Your task to perform on an android device: Open the calendar and show me this week's events? Image 0: 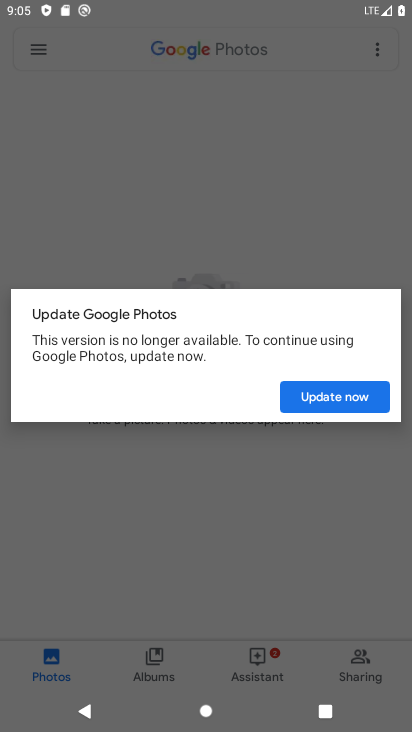
Step 0: press home button
Your task to perform on an android device: Open the calendar and show me this week's events? Image 1: 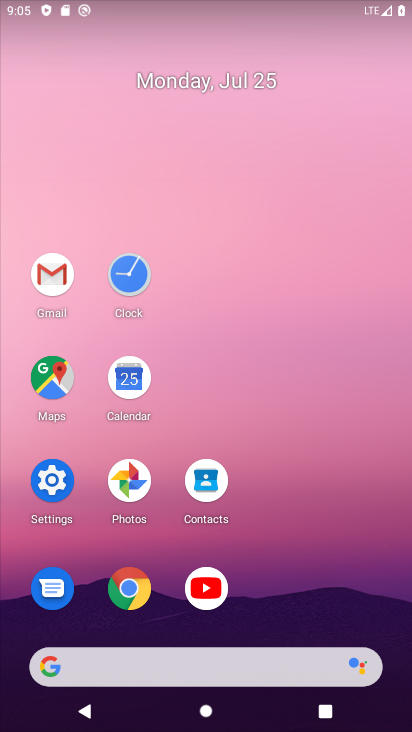
Step 1: click (121, 381)
Your task to perform on an android device: Open the calendar and show me this week's events? Image 2: 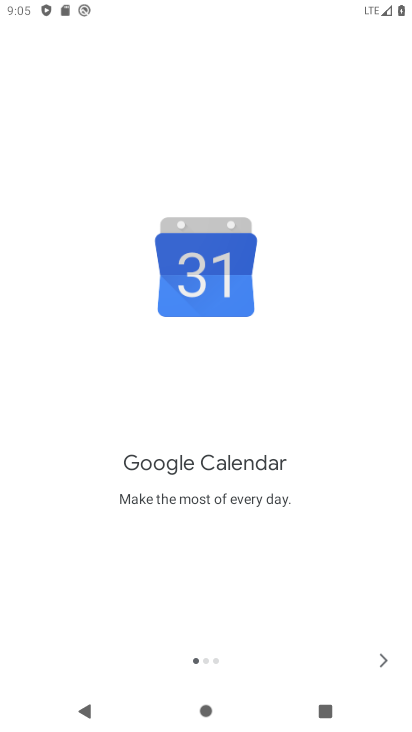
Step 2: click (385, 661)
Your task to perform on an android device: Open the calendar and show me this week's events? Image 3: 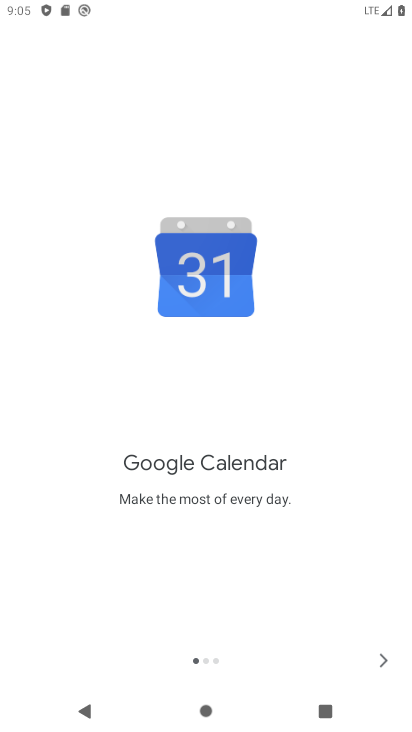
Step 3: click (385, 661)
Your task to perform on an android device: Open the calendar and show me this week's events? Image 4: 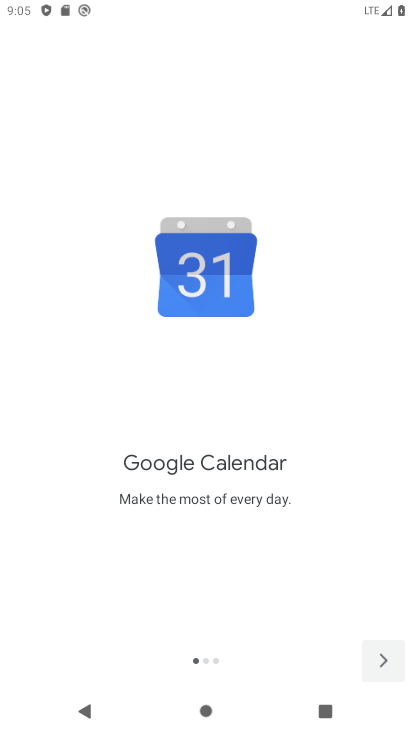
Step 4: click (385, 661)
Your task to perform on an android device: Open the calendar and show me this week's events? Image 5: 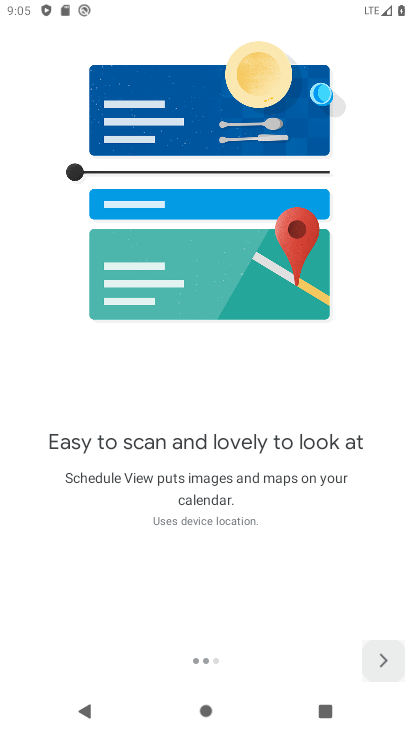
Step 5: click (385, 661)
Your task to perform on an android device: Open the calendar and show me this week's events? Image 6: 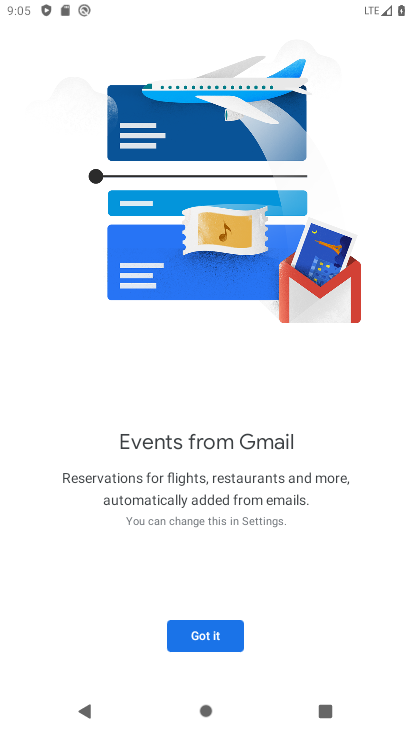
Step 6: click (219, 636)
Your task to perform on an android device: Open the calendar and show me this week's events? Image 7: 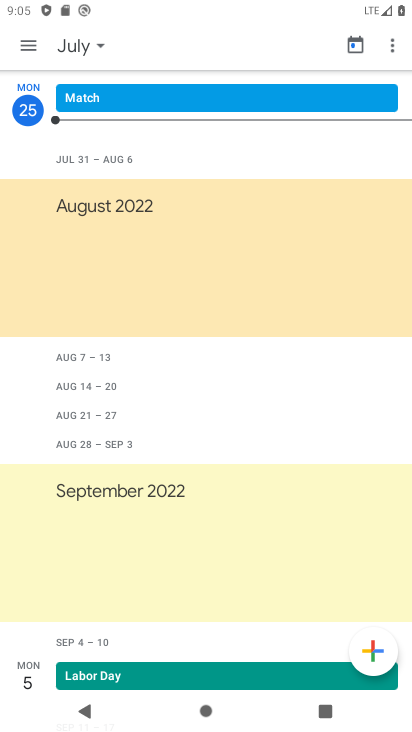
Step 7: click (22, 41)
Your task to perform on an android device: Open the calendar and show me this week's events? Image 8: 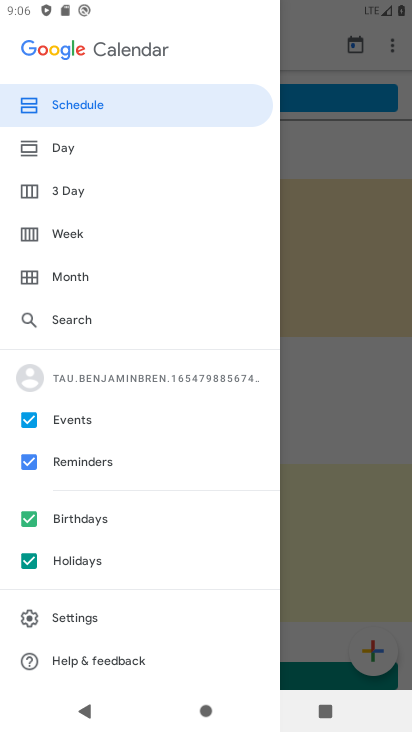
Step 8: click (68, 227)
Your task to perform on an android device: Open the calendar and show me this week's events? Image 9: 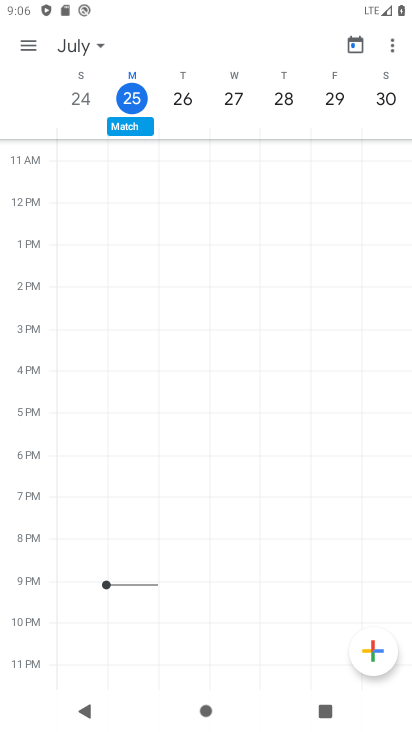
Step 9: task complete